Your task to perform on an android device: Open Youtube and go to the subscriptions tab Image 0: 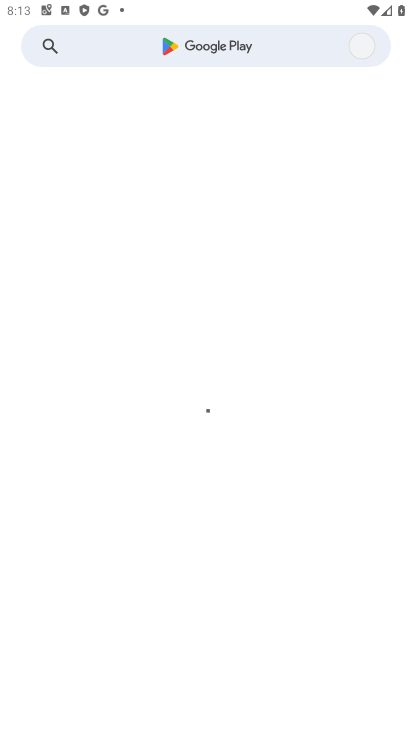
Step 0: press home button
Your task to perform on an android device: Open Youtube and go to the subscriptions tab Image 1: 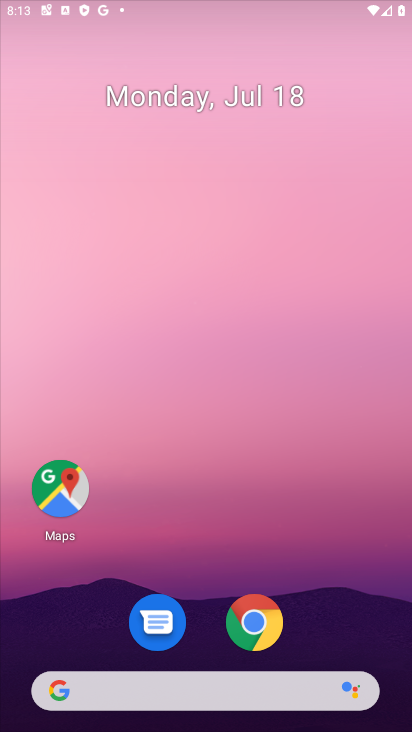
Step 1: drag from (294, 631) to (249, 194)
Your task to perform on an android device: Open Youtube and go to the subscriptions tab Image 2: 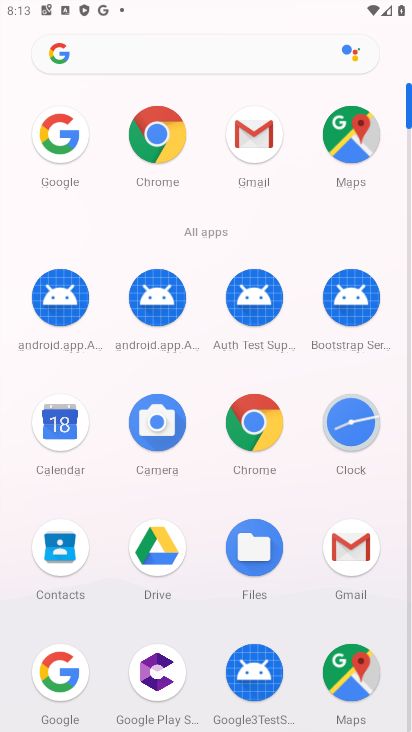
Step 2: drag from (251, 496) to (391, 28)
Your task to perform on an android device: Open Youtube and go to the subscriptions tab Image 3: 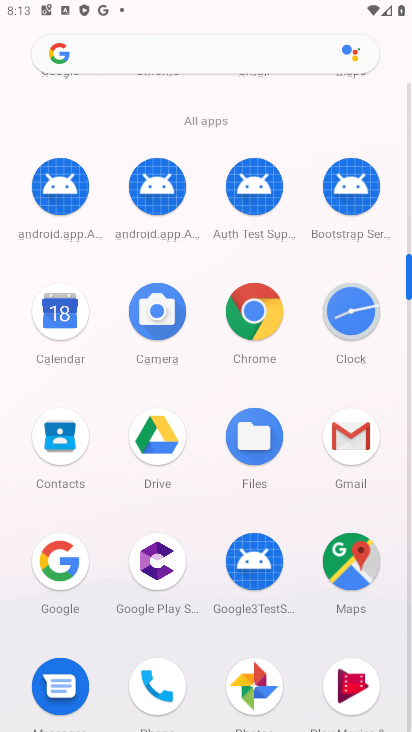
Step 3: drag from (206, 588) to (225, 89)
Your task to perform on an android device: Open Youtube and go to the subscriptions tab Image 4: 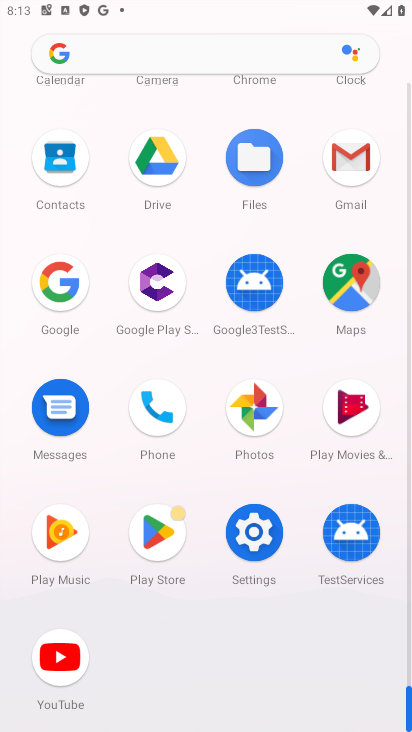
Step 4: click (71, 664)
Your task to perform on an android device: Open Youtube and go to the subscriptions tab Image 5: 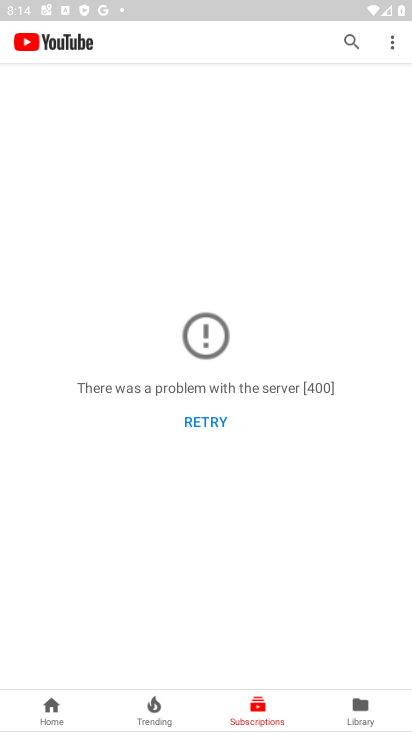
Step 5: task complete